Your task to perform on an android device: open a bookmark in the chrome app Image 0: 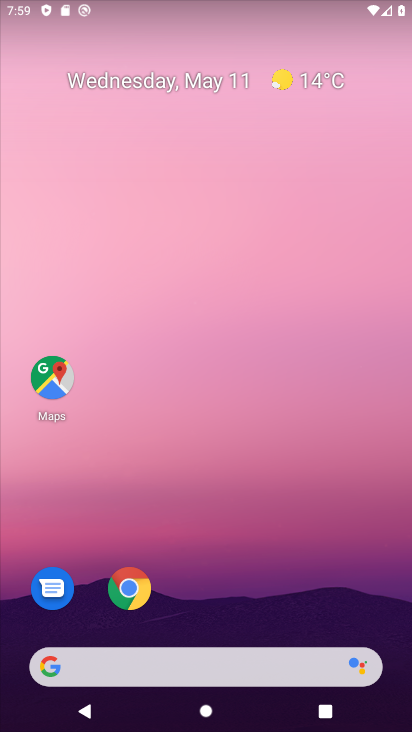
Step 0: drag from (277, 719) to (180, 128)
Your task to perform on an android device: open a bookmark in the chrome app Image 1: 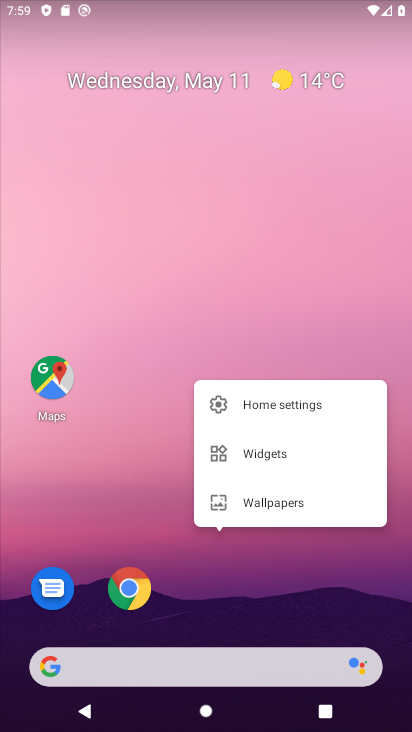
Step 1: press home button
Your task to perform on an android device: open a bookmark in the chrome app Image 2: 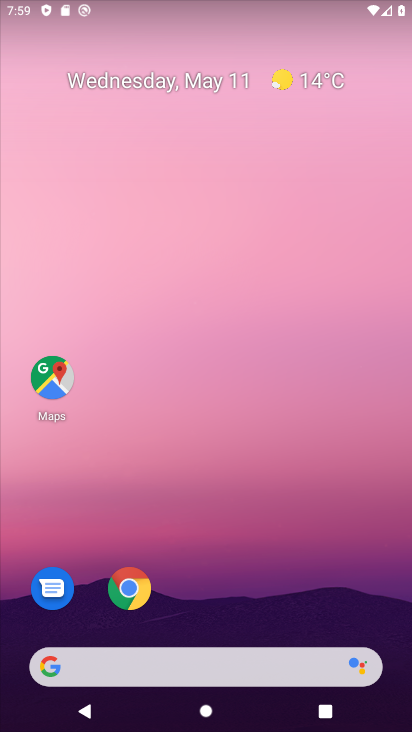
Step 2: click (128, 597)
Your task to perform on an android device: open a bookmark in the chrome app Image 3: 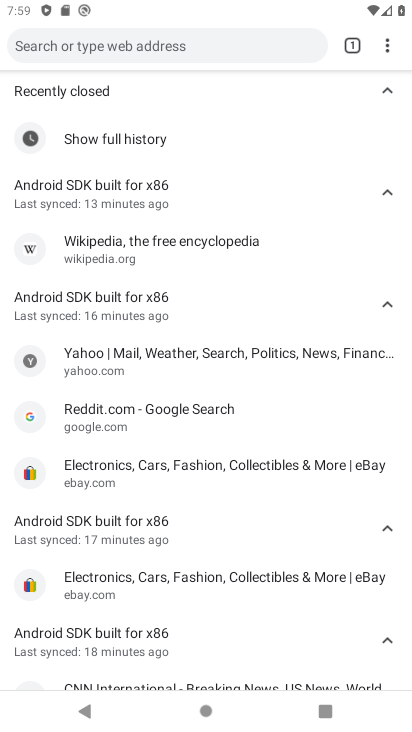
Step 3: click (394, 44)
Your task to perform on an android device: open a bookmark in the chrome app Image 4: 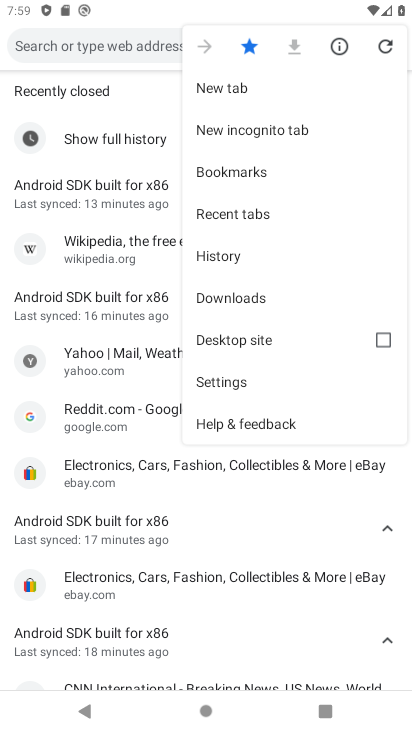
Step 4: click (246, 176)
Your task to perform on an android device: open a bookmark in the chrome app Image 5: 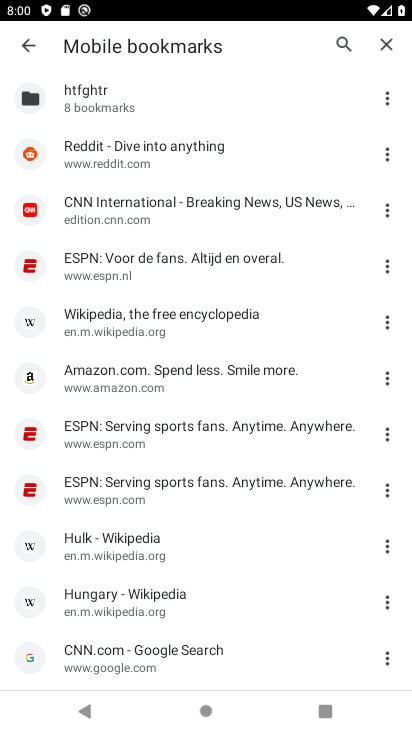
Step 5: click (228, 183)
Your task to perform on an android device: open a bookmark in the chrome app Image 6: 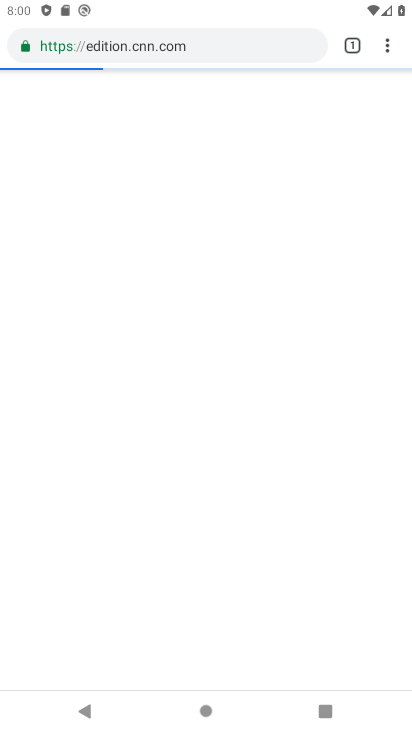
Step 6: click (227, 212)
Your task to perform on an android device: open a bookmark in the chrome app Image 7: 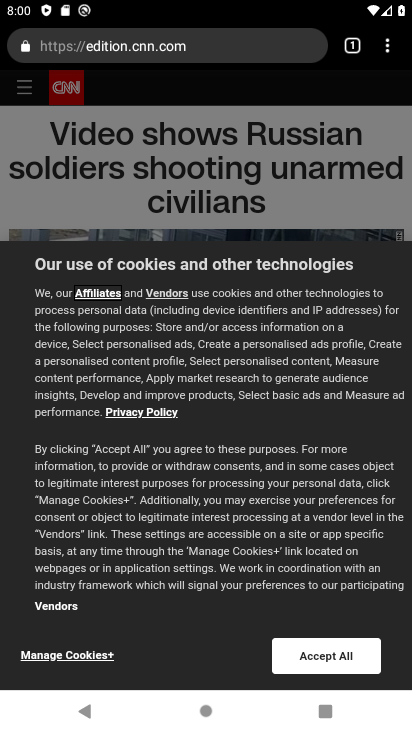
Step 7: task complete